Your task to perform on an android device: open app "Life360: Find Family & Friends" (install if not already installed), go to login, and select forgot password Image 0: 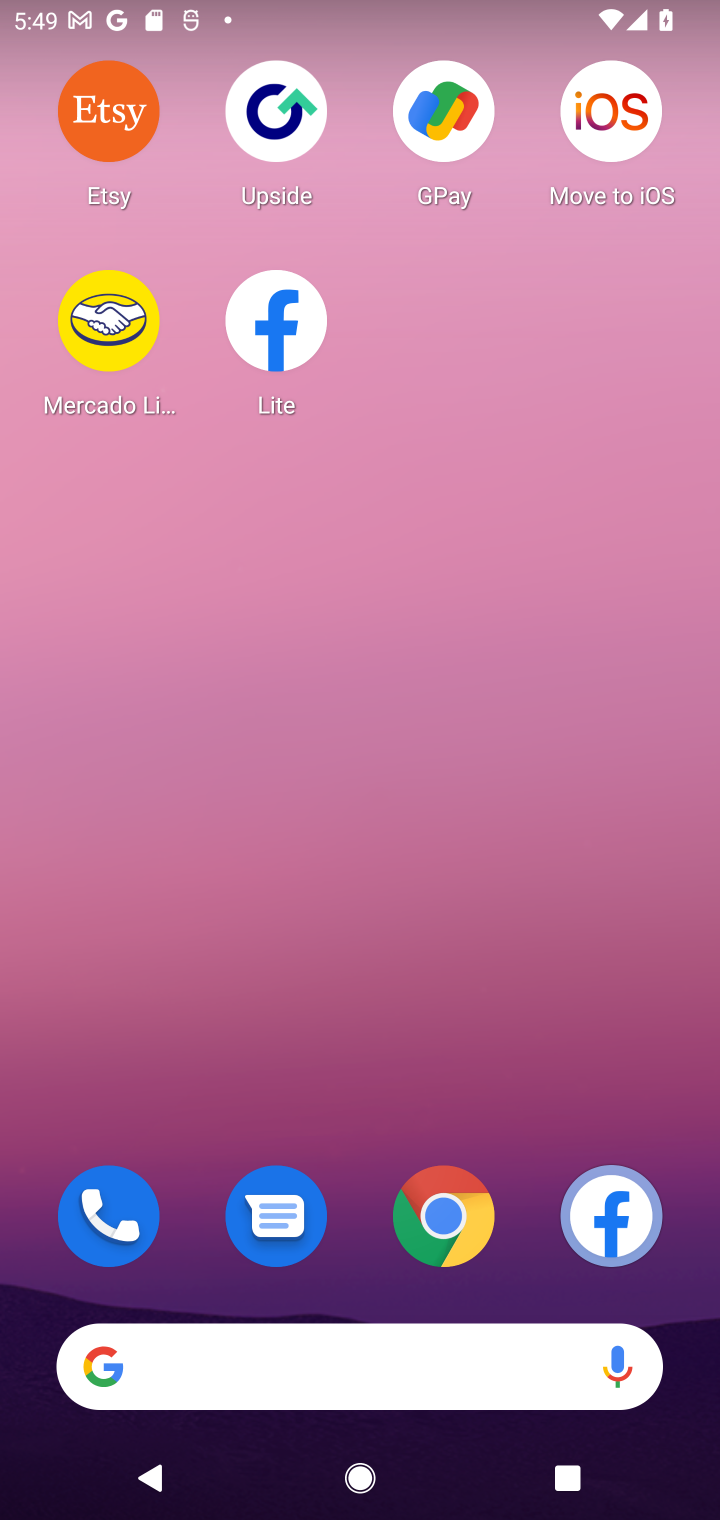
Step 0: drag from (530, 1278) to (496, 199)
Your task to perform on an android device: open app "Life360: Find Family & Friends" (install if not already installed), go to login, and select forgot password Image 1: 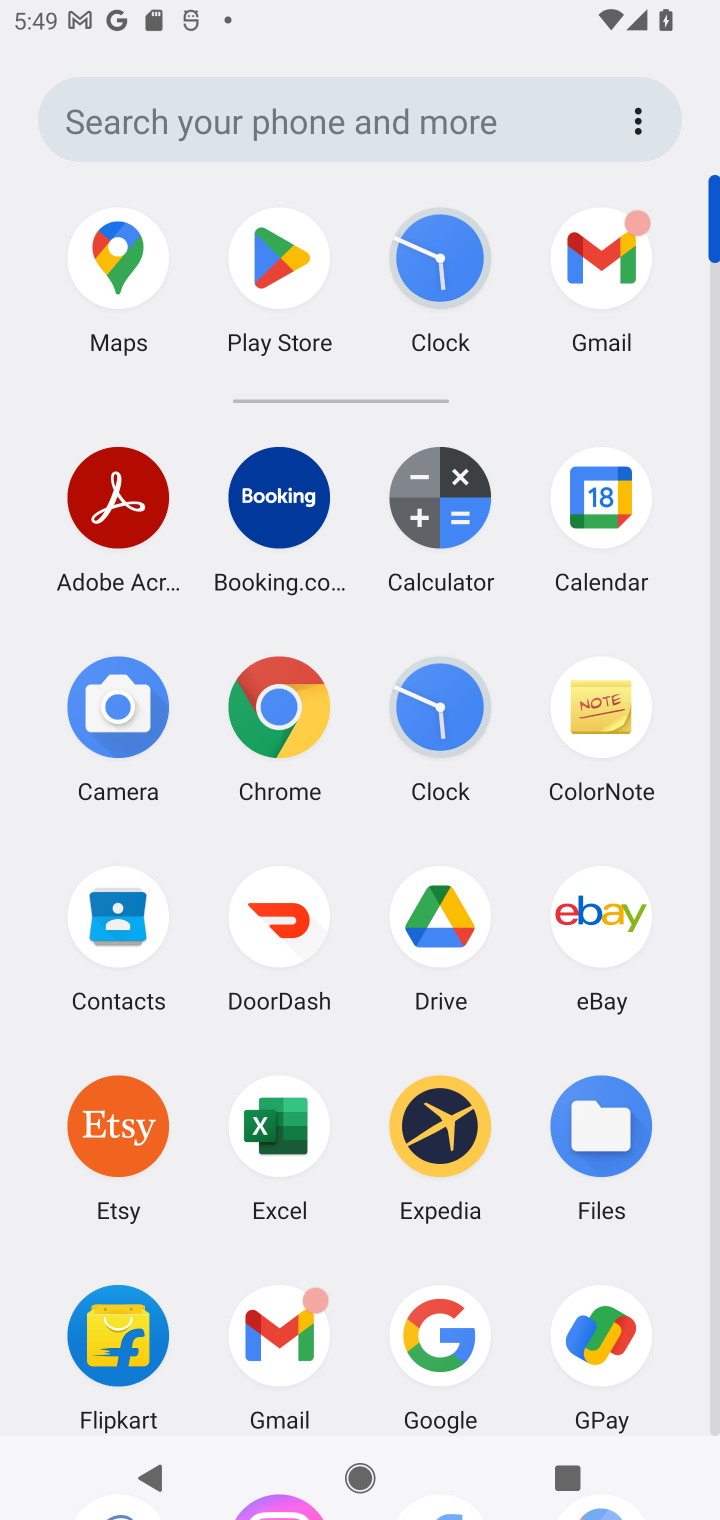
Step 1: drag from (471, 890) to (484, 555)
Your task to perform on an android device: open app "Life360: Find Family & Friends" (install if not already installed), go to login, and select forgot password Image 2: 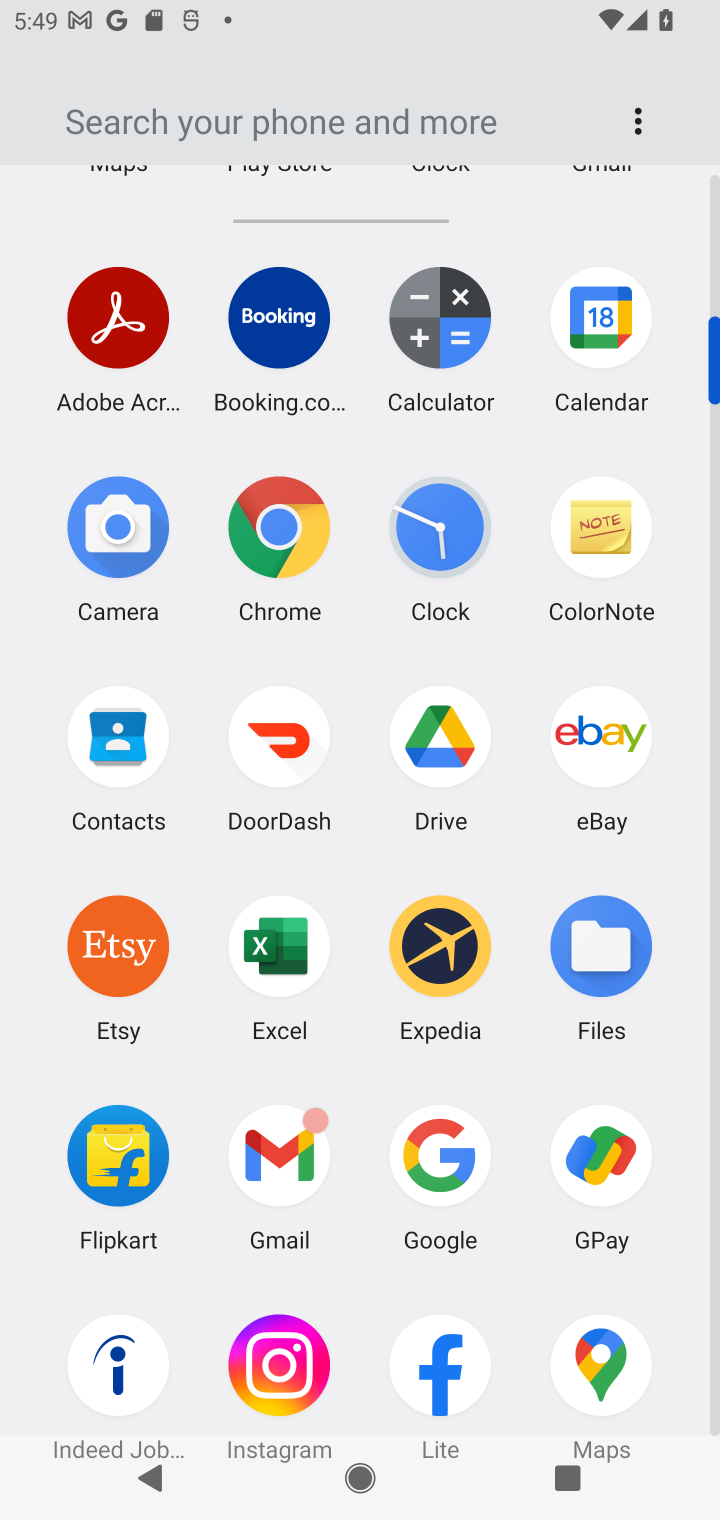
Step 2: drag from (534, 1263) to (548, 452)
Your task to perform on an android device: open app "Life360: Find Family & Friends" (install if not already installed), go to login, and select forgot password Image 3: 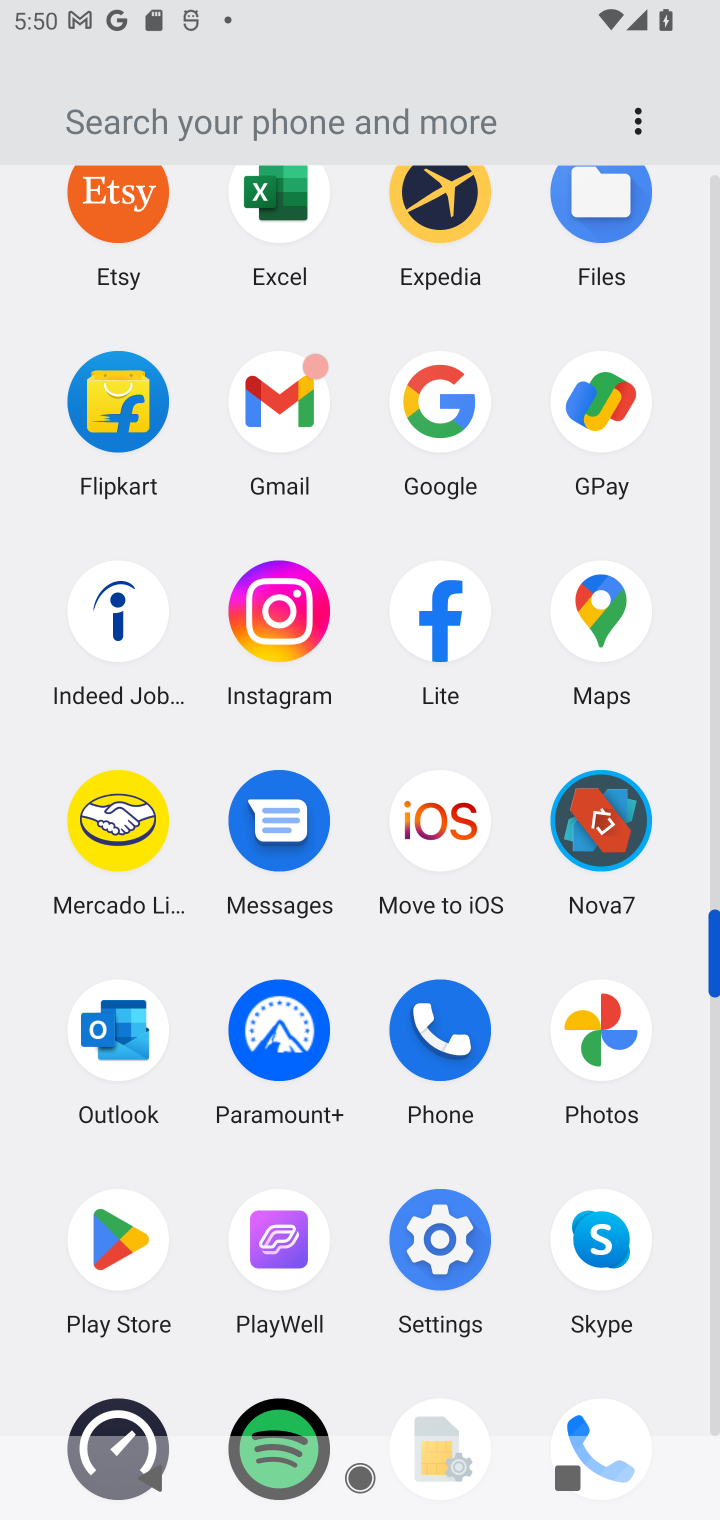
Step 3: click (121, 1241)
Your task to perform on an android device: open app "Life360: Find Family & Friends" (install if not already installed), go to login, and select forgot password Image 4: 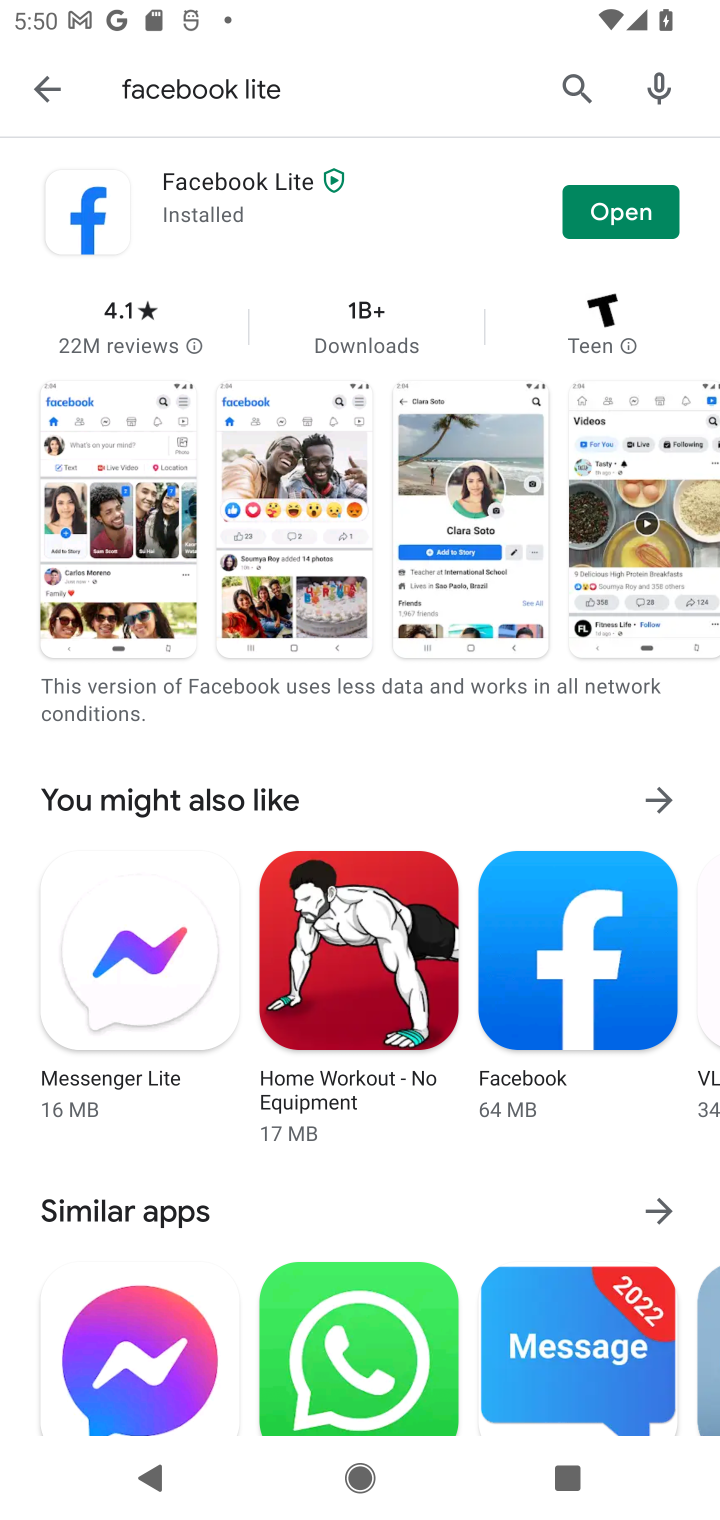
Step 4: click (574, 78)
Your task to perform on an android device: open app "Life360: Find Family & Friends" (install if not already installed), go to login, and select forgot password Image 5: 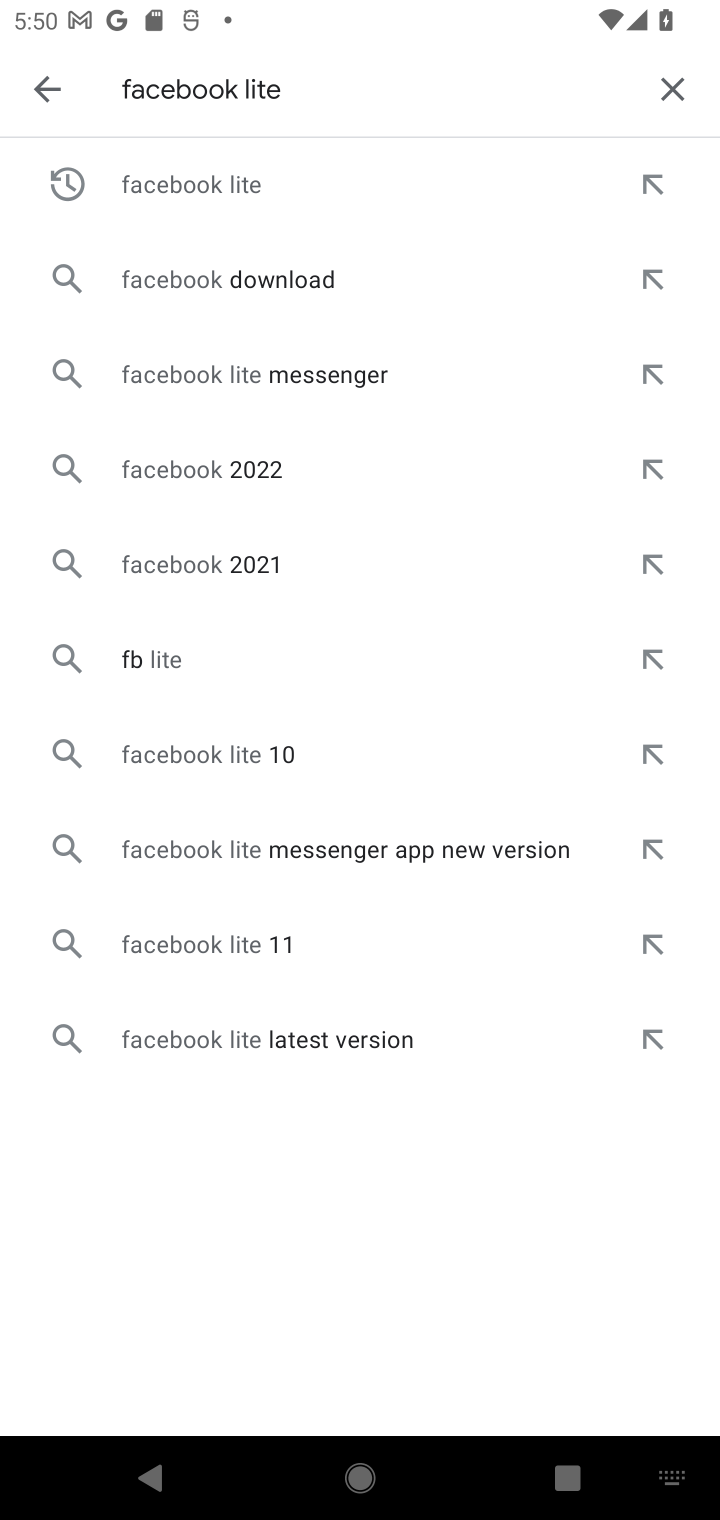
Step 5: click (673, 94)
Your task to perform on an android device: open app "Life360: Find Family & Friends" (install if not already installed), go to login, and select forgot password Image 6: 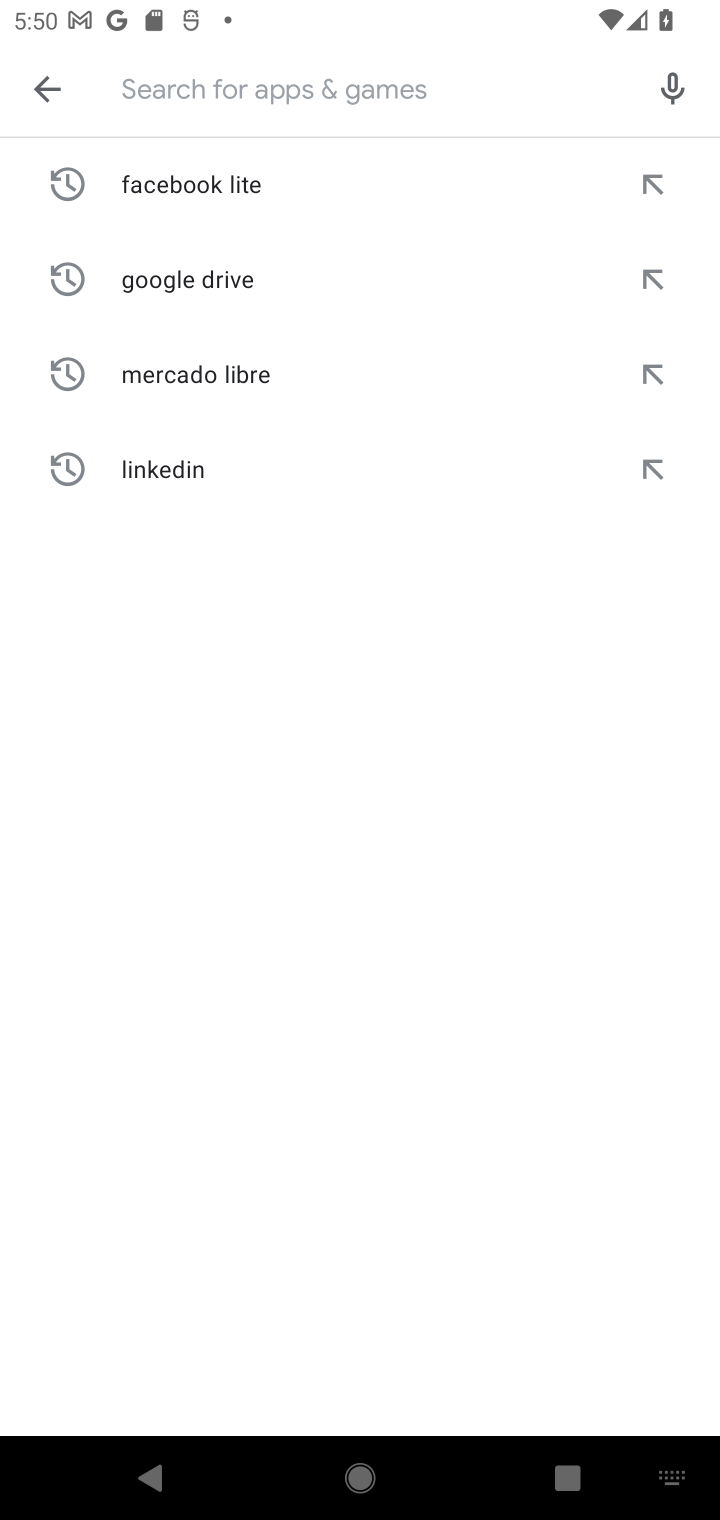
Step 6: type "Life360: Find Family & Friends"
Your task to perform on an android device: open app "Life360: Find Family & Friends" (install if not already installed), go to login, and select forgot password Image 7: 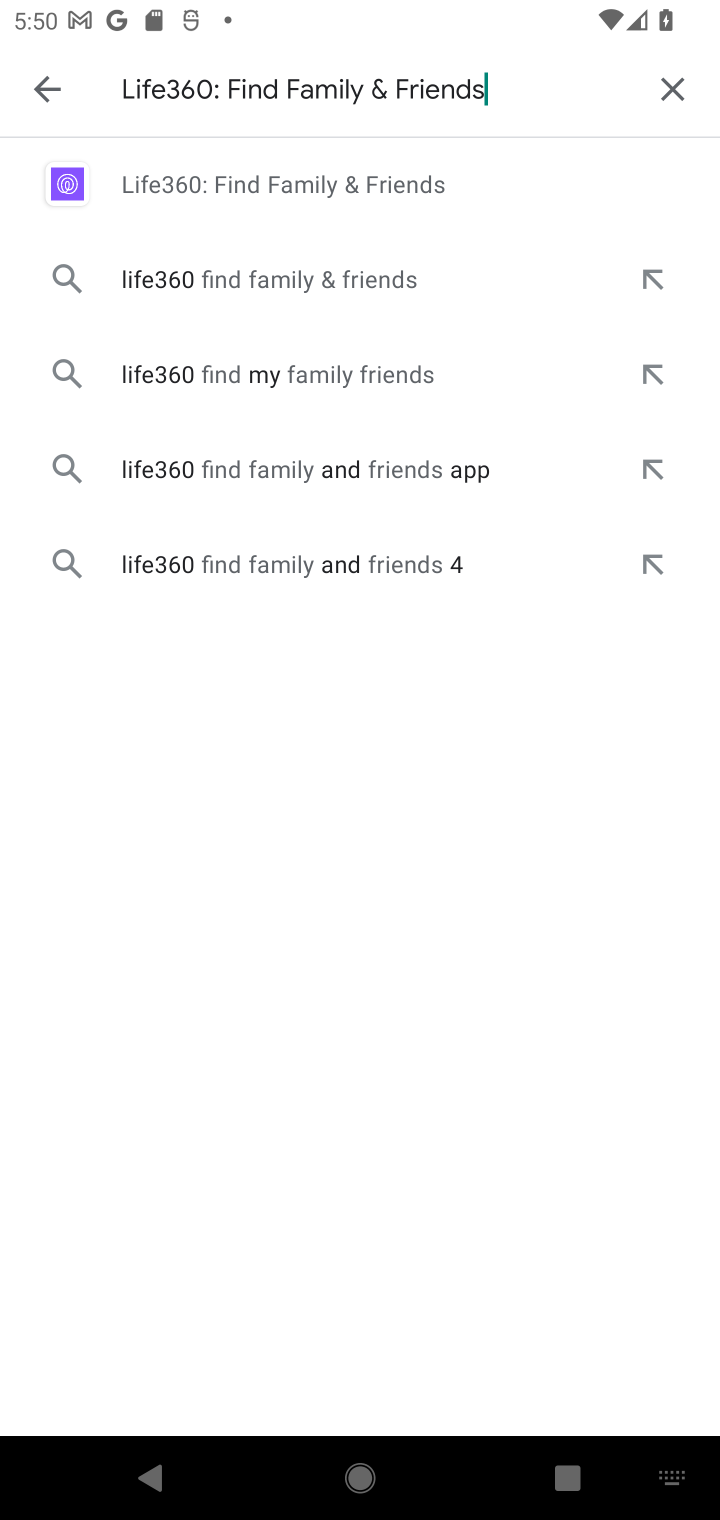
Step 7: click (222, 177)
Your task to perform on an android device: open app "Life360: Find Family & Friends" (install if not already installed), go to login, and select forgot password Image 8: 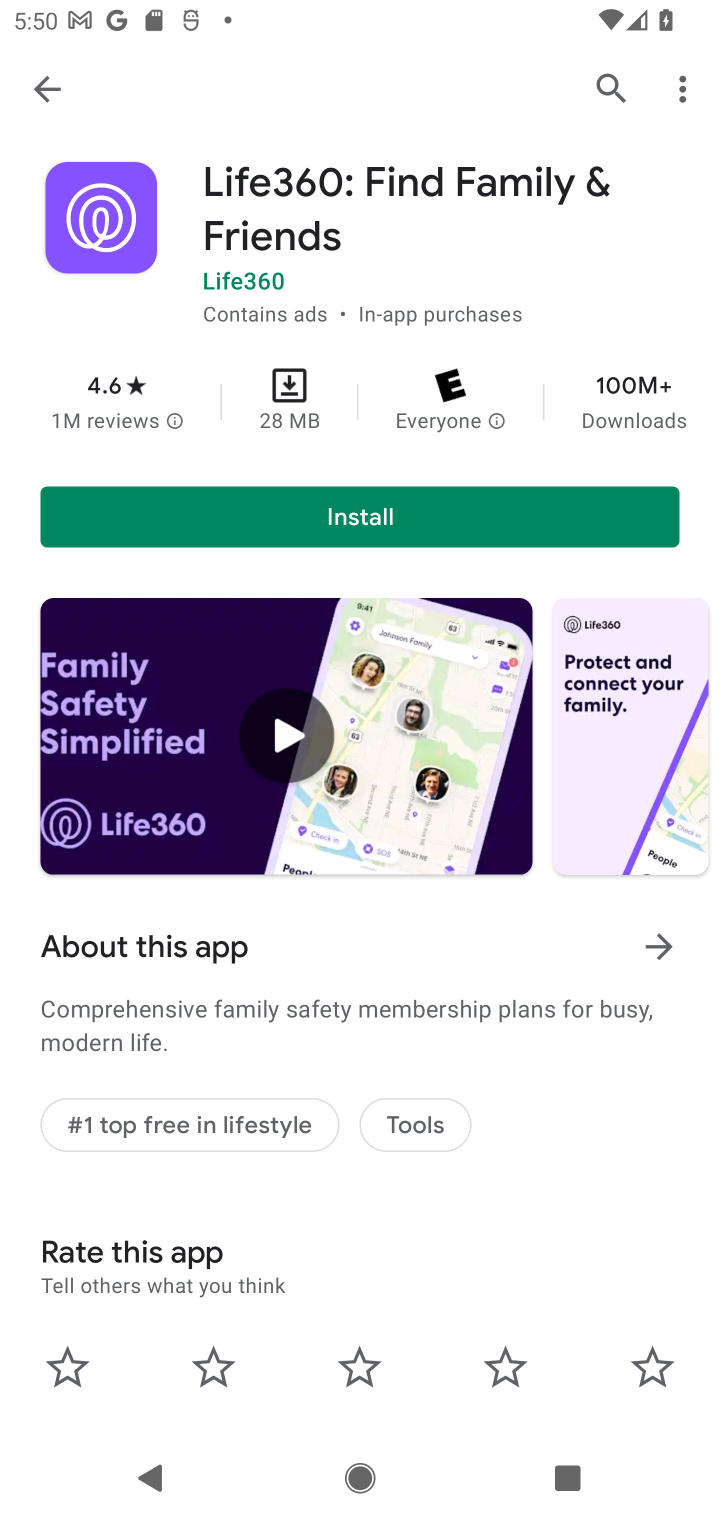
Step 8: click (370, 519)
Your task to perform on an android device: open app "Life360: Find Family & Friends" (install if not already installed), go to login, and select forgot password Image 9: 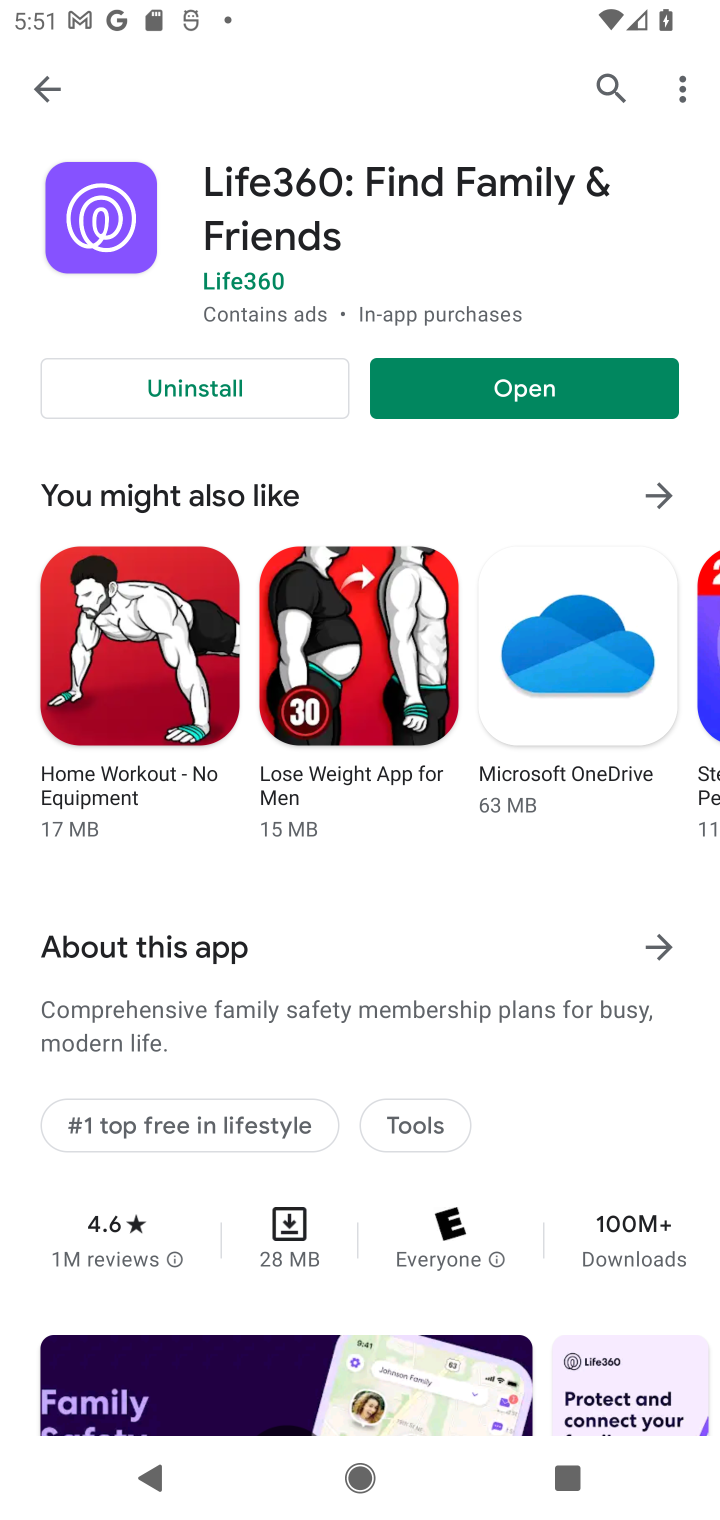
Step 9: click (529, 398)
Your task to perform on an android device: open app "Life360: Find Family & Friends" (install if not already installed), go to login, and select forgot password Image 10: 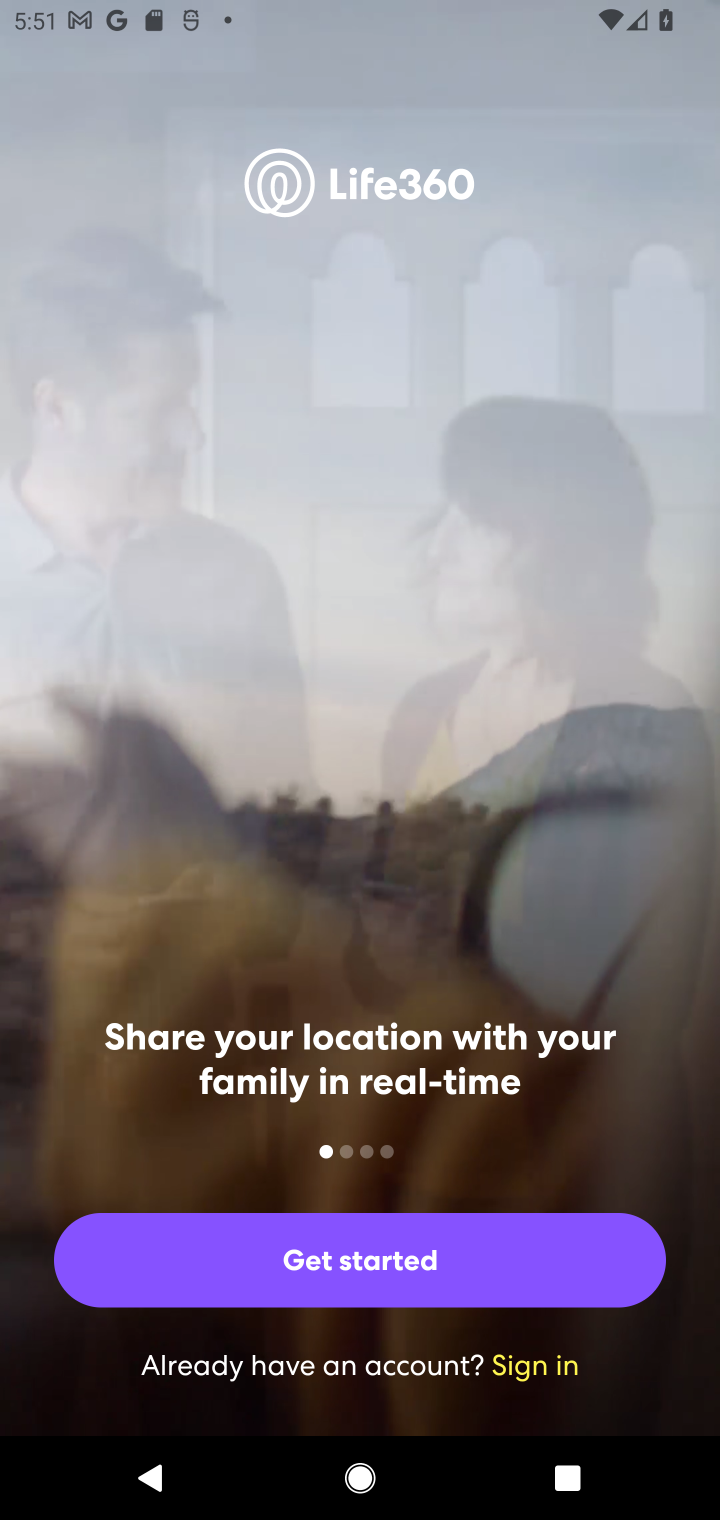
Step 10: click (532, 1373)
Your task to perform on an android device: open app "Life360: Find Family & Friends" (install if not already installed), go to login, and select forgot password Image 11: 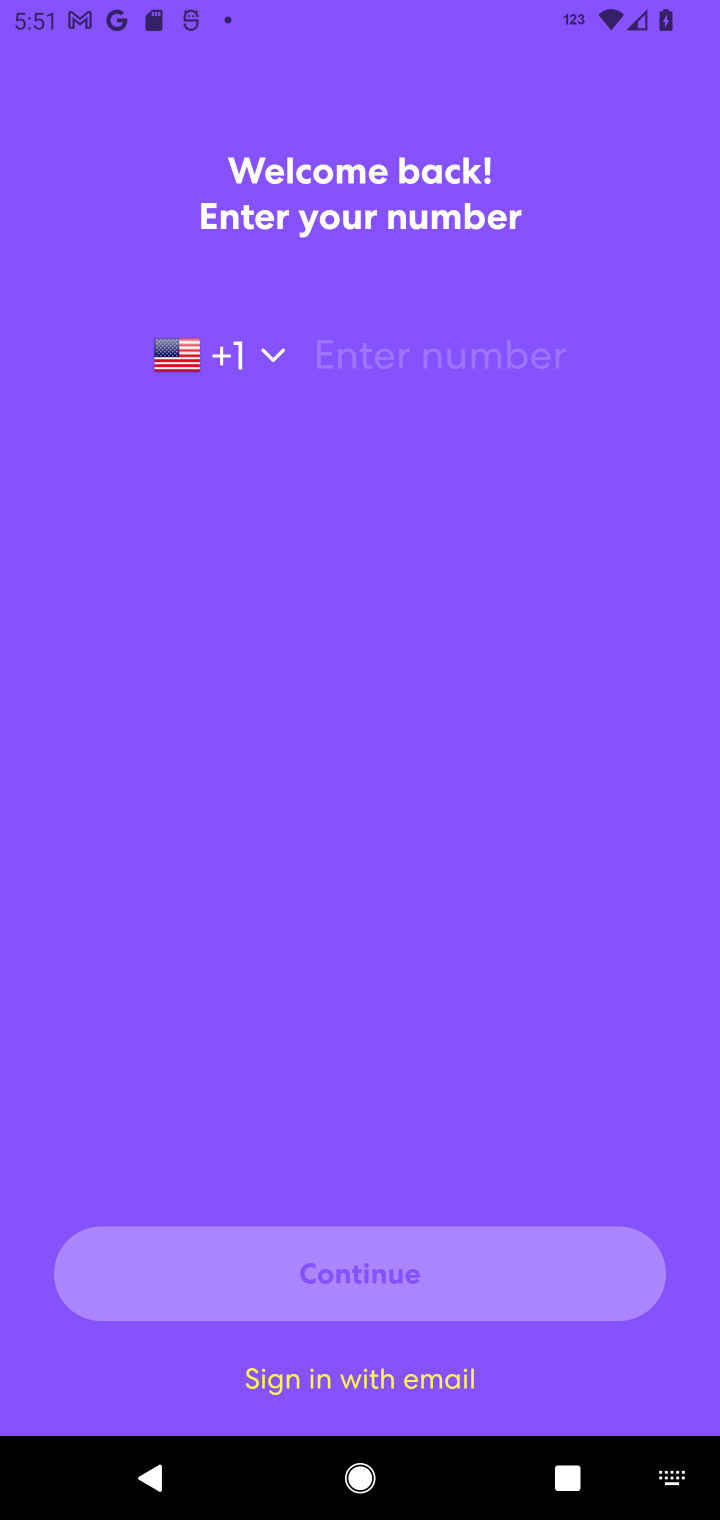
Step 11: click (352, 1376)
Your task to perform on an android device: open app "Life360: Find Family & Friends" (install if not already installed), go to login, and select forgot password Image 12: 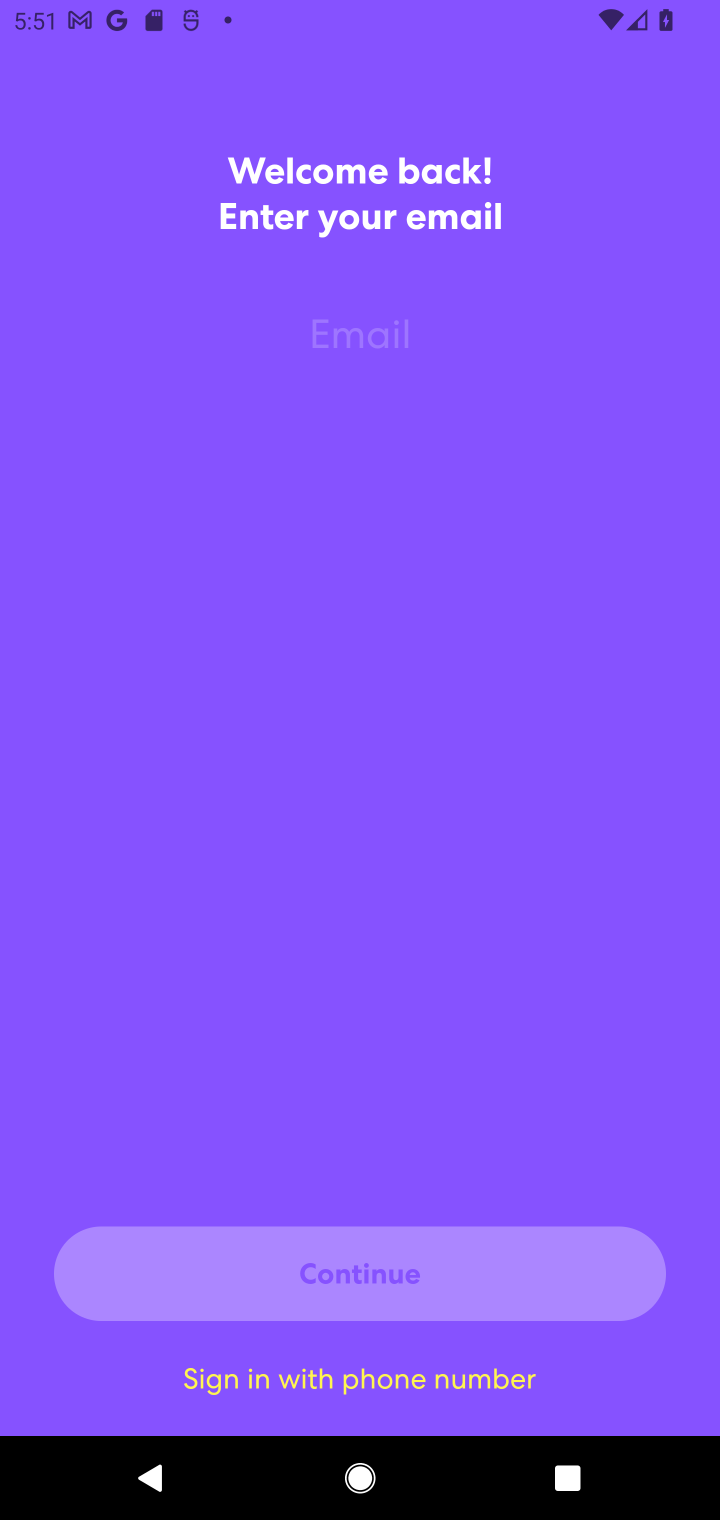
Step 12: task complete